Your task to perform on an android device: Open the calendar and show me this week's events? Image 0: 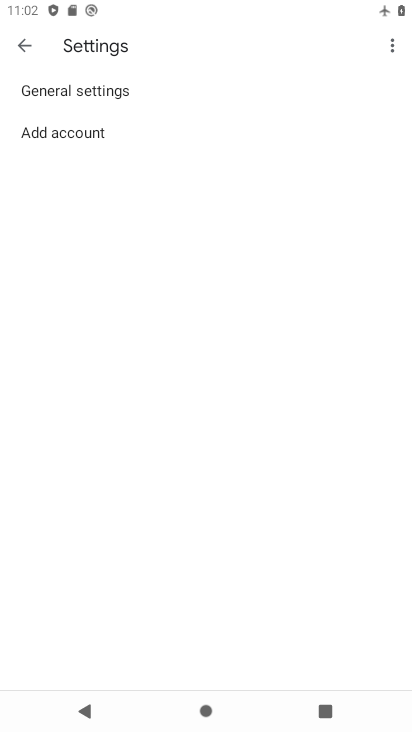
Step 0: press home button
Your task to perform on an android device: Open the calendar and show me this week's events? Image 1: 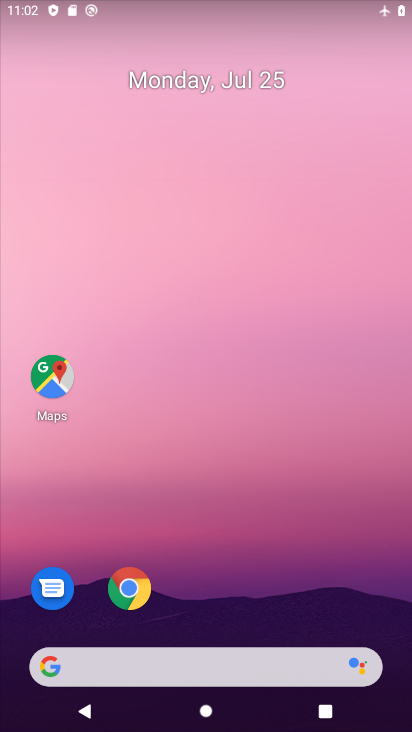
Step 1: drag from (226, 221) to (226, 135)
Your task to perform on an android device: Open the calendar and show me this week's events? Image 2: 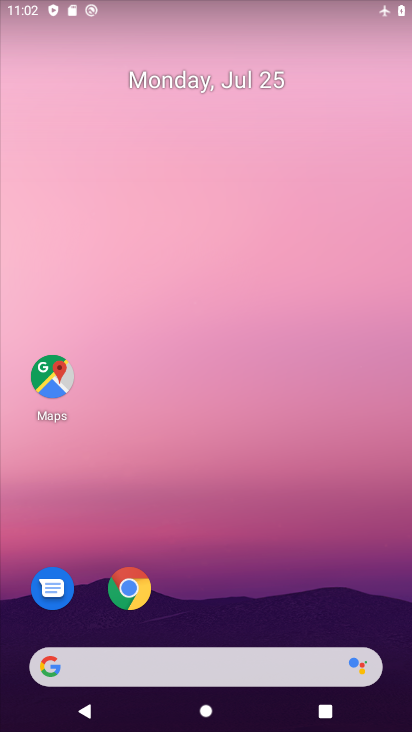
Step 2: drag from (188, 566) to (166, 200)
Your task to perform on an android device: Open the calendar and show me this week's events? Image 3: 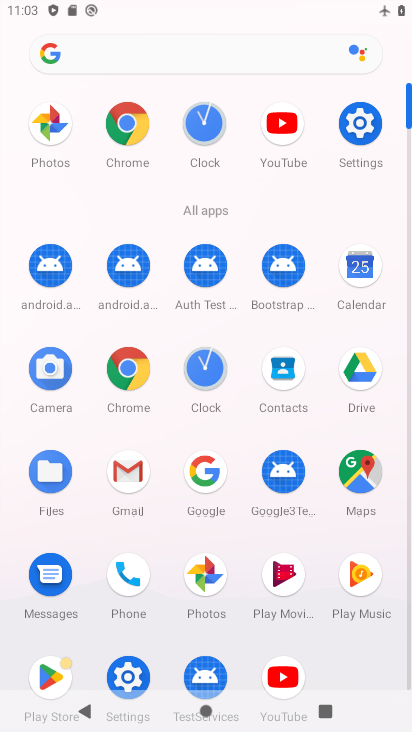
Step 3: click (354, 279)
Your task to perform on an android device: Open the calendar and show me this week's events? Image 4: 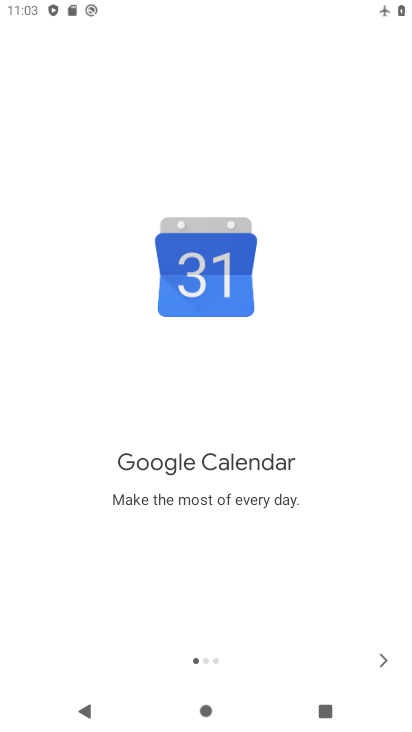
Step 4: click (388, 655)
Your task to perform on an android device: Open the calendar and show me this week's events? Image 5: 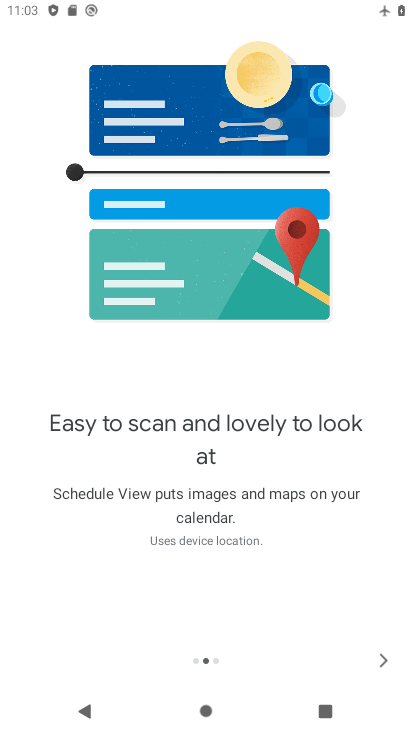
Step 5: click (388, 655)
Your task to perform on an android device: Open the calendar and show me this week's events? Image 6: 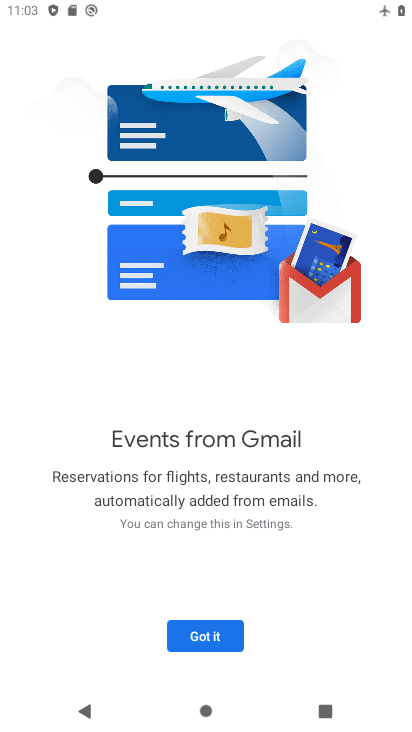
Step 6: click (206, 635)
Your task to perform on an android device: Open the calendar and show me this week's events? Image 7: 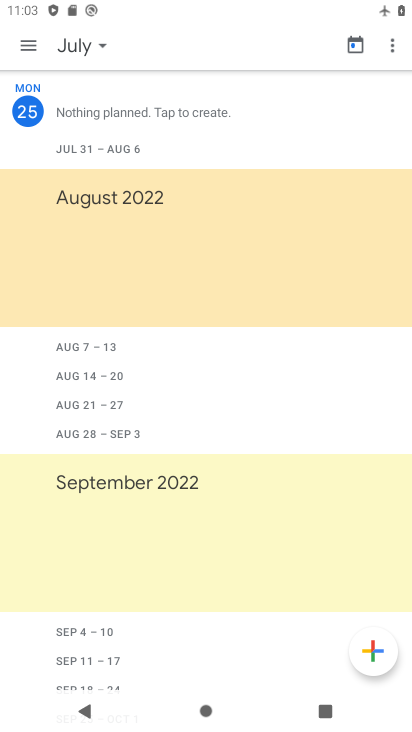
Step 7: click (75, 51)
Your task to perform on an android device: Open the calendar and show me this week's events? Image 8: 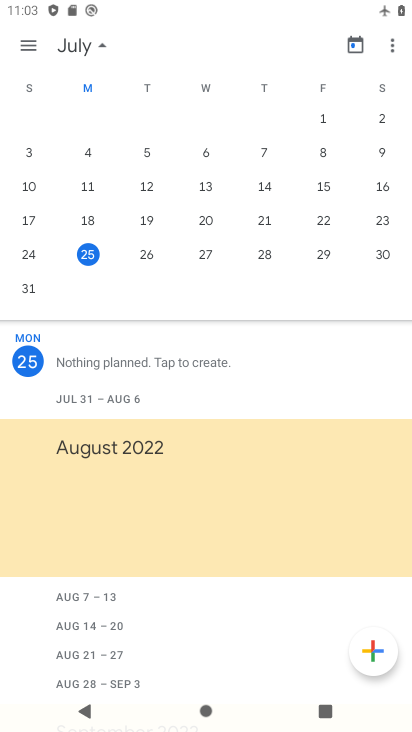
Step 8: click (34, 49)
Your task to perform on an android device: Open the calendar and show me this week's events? Image 9: 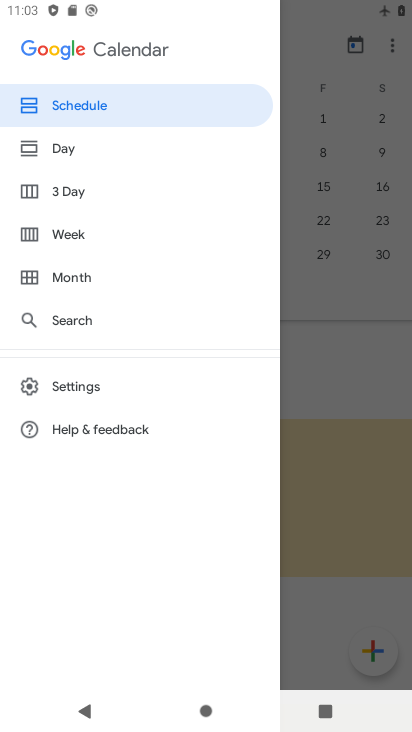
Step 9: click (67, 241)
Your task to perform on an android device: Open the calendar and show me this week's events? Image 10: 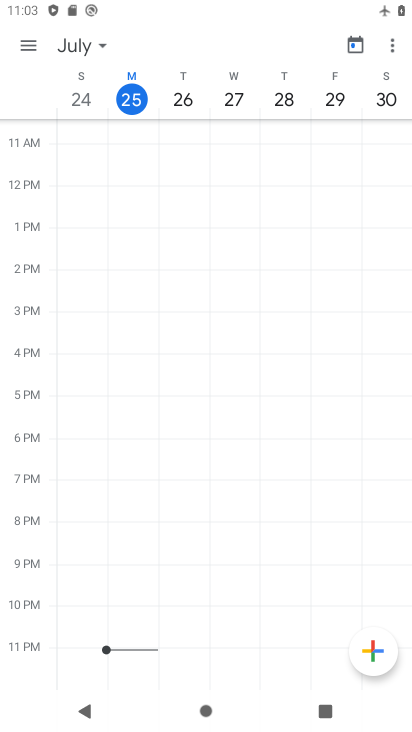
Step 10: task complete